Your task to perform on an android device: Go to Wikipedia Image 0: 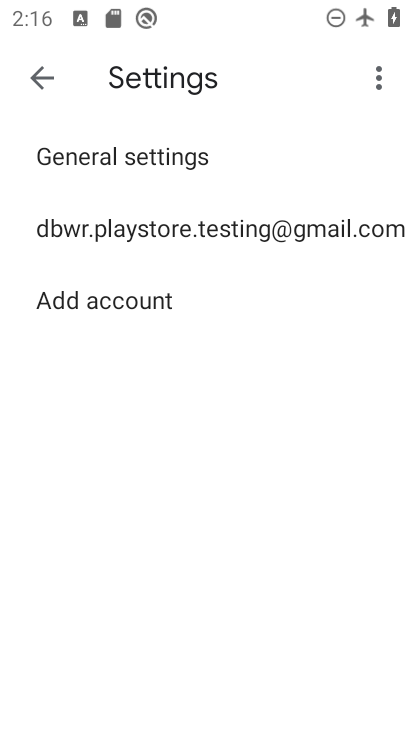
Step 0: press home button
Your task to perform on an android device: Go to Wikipedia Image 1: 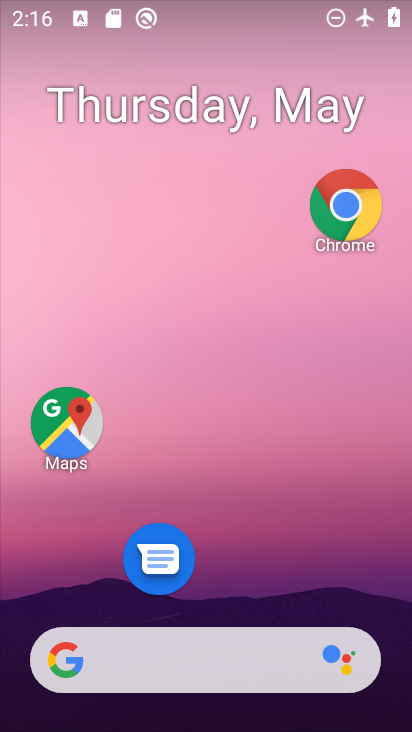
Step 1: drag from (169, 643) to (256, 182)
Your task to perform on an android device: Go to Wikipedia Image 2: 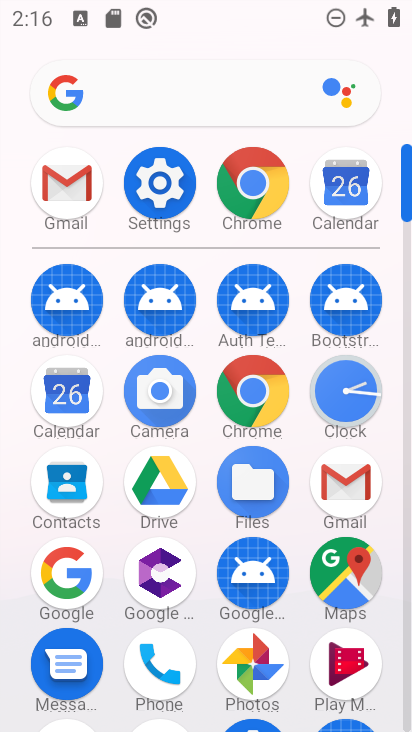
Step 2: click (174, 193)
Your task to perform on an android device: Go to Wikipedia Image 3: 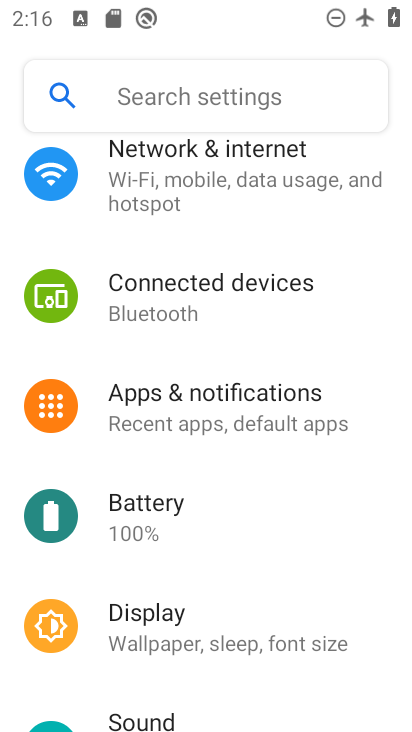
Step 3: press home button
Your task to perform on an android device: Go to Wikipedia Image 4: 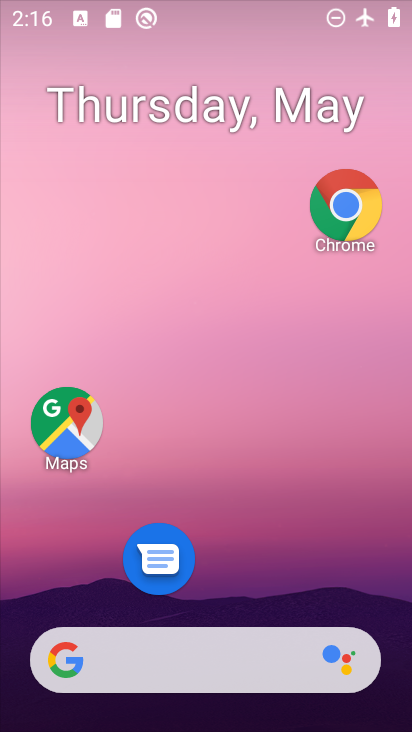
Step 4: drag from (188, 630) to (213, 206)
Your task to perform on an android device: Go to Wikipedia Image 5: 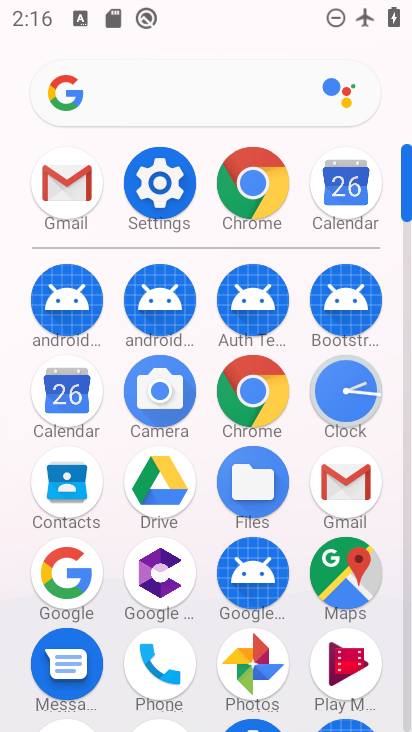
Step 5: click (248, 200)
Your task to perform on an android device: Go to Wikipedia Image 6: 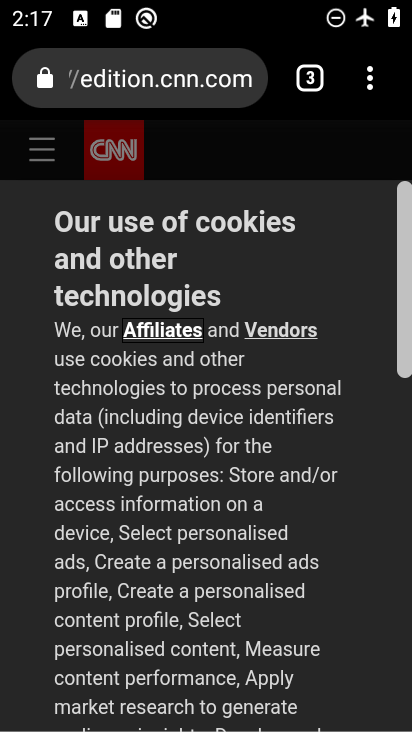
Step 6: click (220, 95)
Your task to perform on an android device: Go to Wikipedia Image 7: 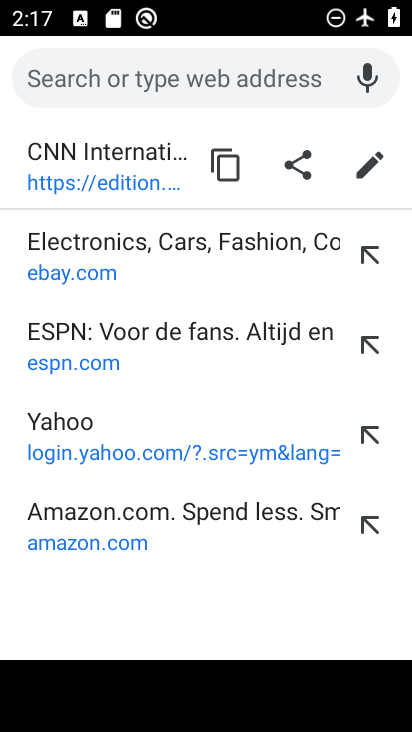
Step 7: type "wiki"
Your task to perform on an android device: Go to Wikipedia Image 8: 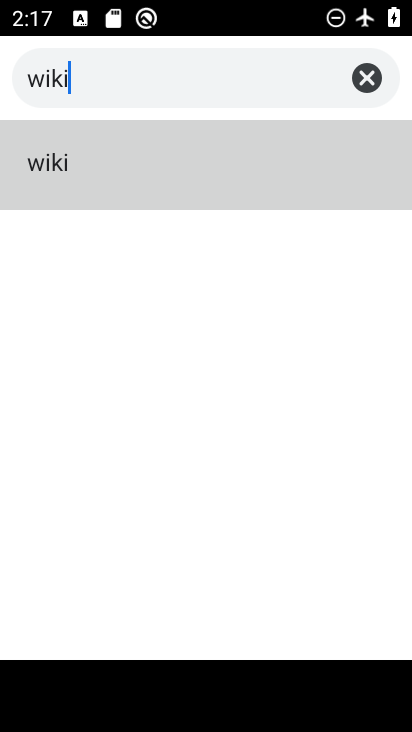
Step 8: task complete